Your task to perform on an android device: toggle airplane mode Image 0: 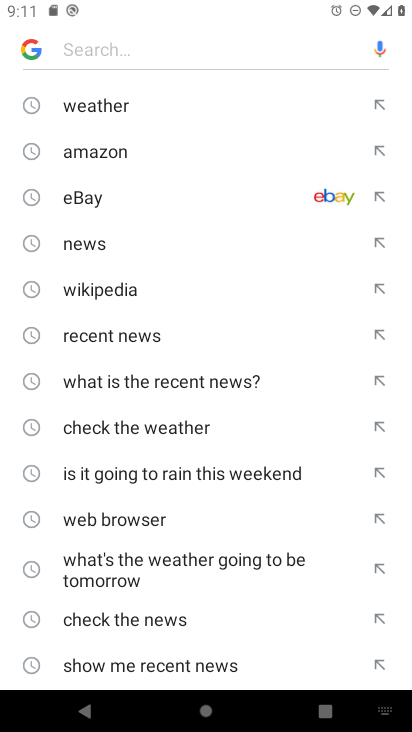
Step 0: press home button
Your task to perform on an android device: toggle airplane mode Image 1: 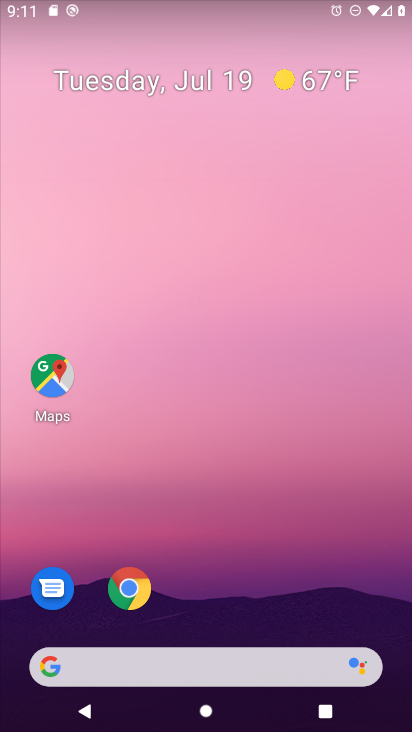
Step 1: drag from (353, 604) to (352, 63)
Your task to perform on an android device: toggle airplane mode Image 2: 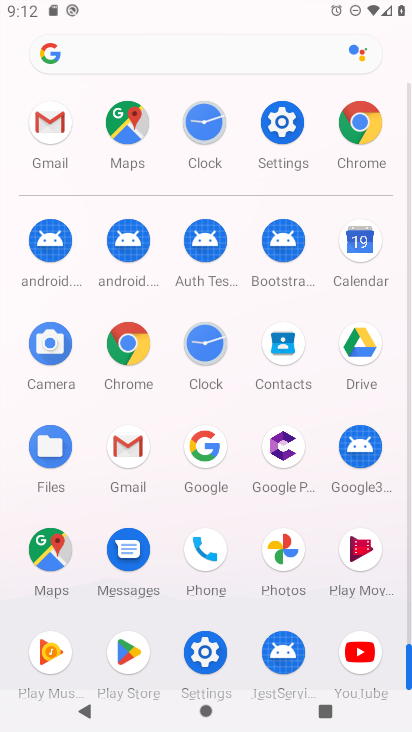
Step 2: click (285, 147)
Your task to perform on an android device: toggle airplane mode Image 3: 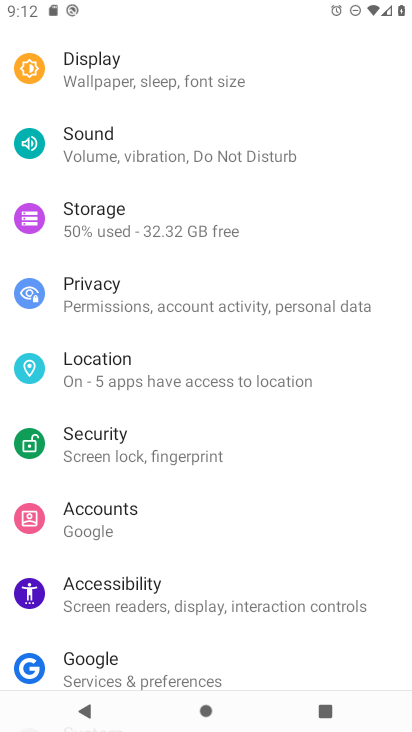
Step 3: drag from (332, 244) to (352, 332)
Your task to perform on an android device: toggle airplane mode Image 4: 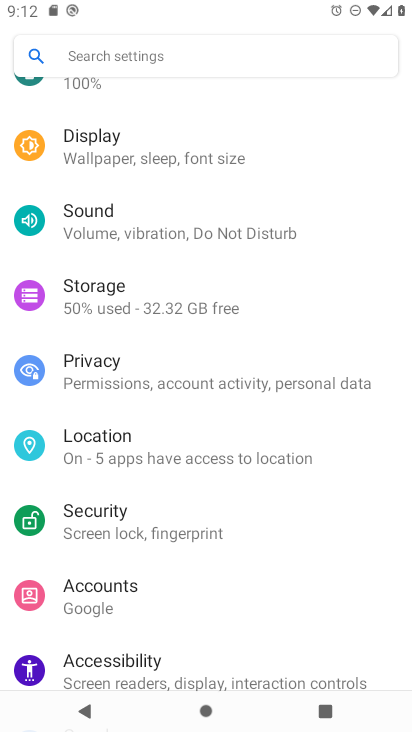
Step 4: drag from (365, 216) to (378, 336)
Your task to perform on an android device: toggle airplane mode Image 5: 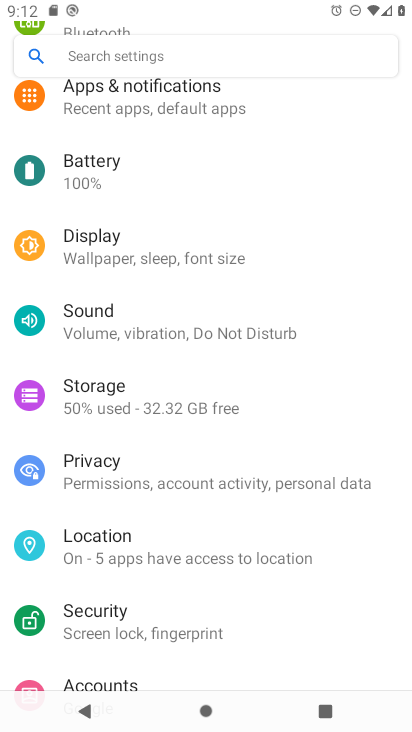
Step 5: drag from (369, 230) to (378, 316)
Your task to perform on an android device: toggle airplane mode Image 6: 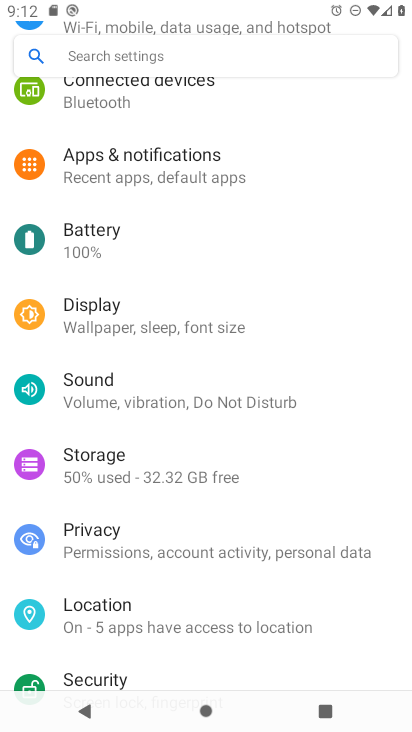
Step 6: drag from (344, 255) to (365, 358)
Your task to perform on an android device: toggle airplane mode Image 7: 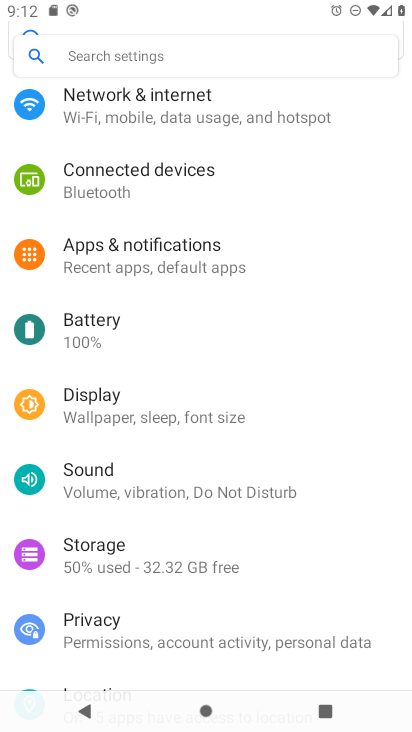
Step 7: drag from (338, 206) to (352, 324)
Your task to perform on an android device: toggle airplane mode Image 8: 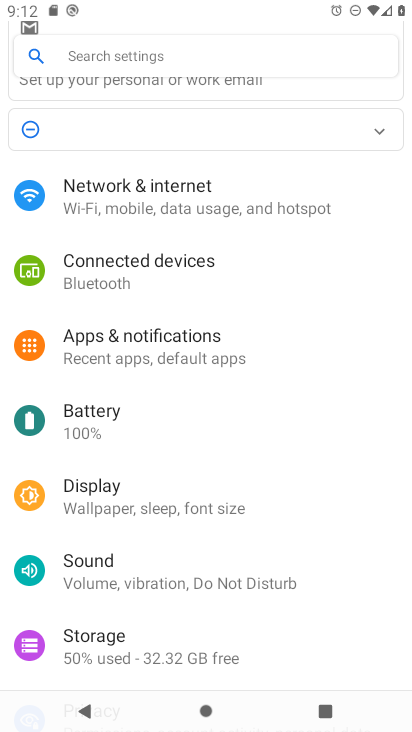
Step 8: click (293, 197)
Your task to perform on an android device: toggle airplane mode Image 9: 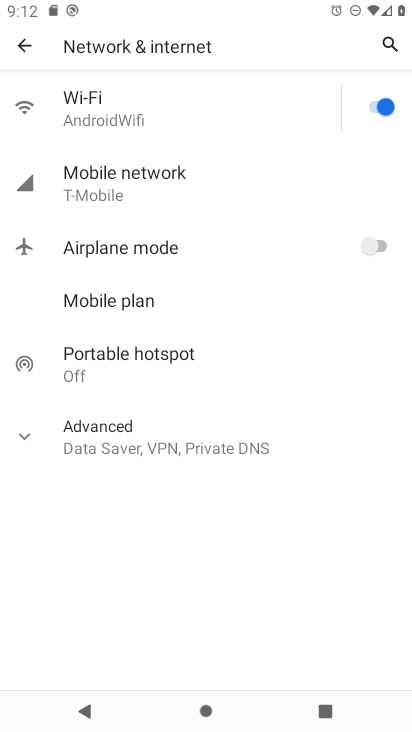
Step 9: click (365, 246)
Your task to perform on an android device: toggle airplane mode Image 10: 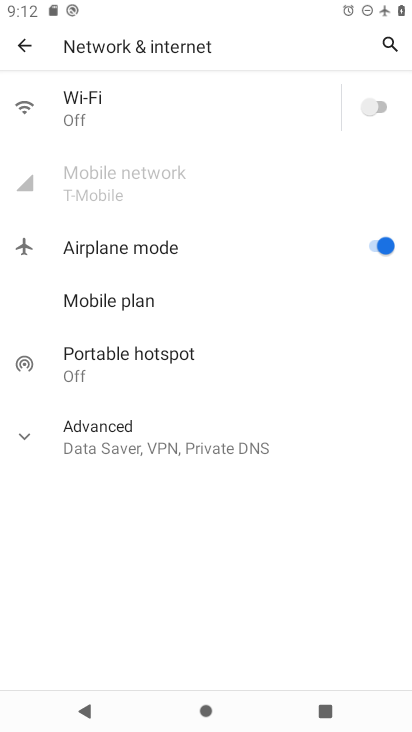
Step 10: task complete